Your task to perform on an android device: turn off notifications in google photos Image 0: 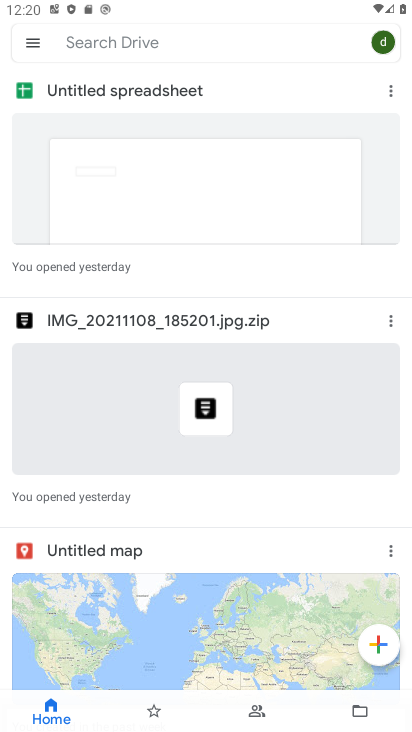
Step 0: press home button
Your task to perform on an android device: turn off notifications in google photos Image 1: 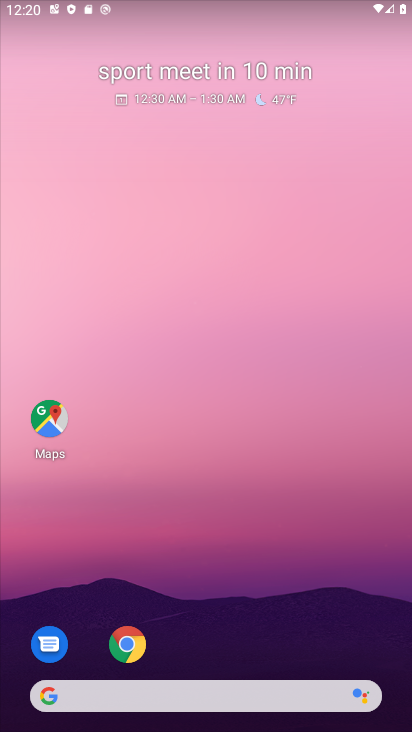
Step 1: drag from (280, 620) to (311, 202)
Your task to perform on an android device: turn off notifications in google photos Image 2: 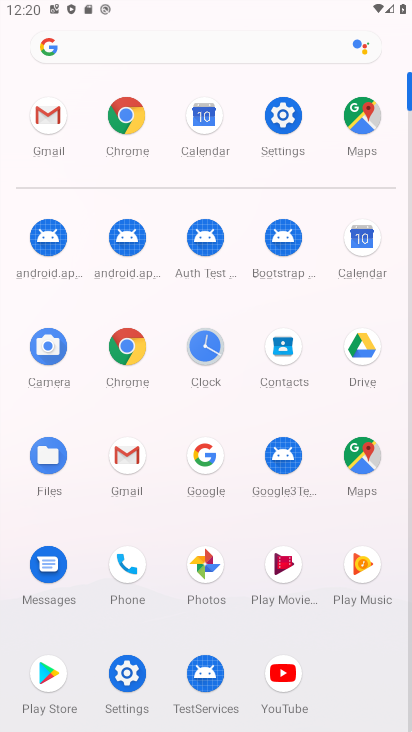
Step 2: click (200, 579)
Your task to perform on an android device: turn off notifications in google photos Image 3: 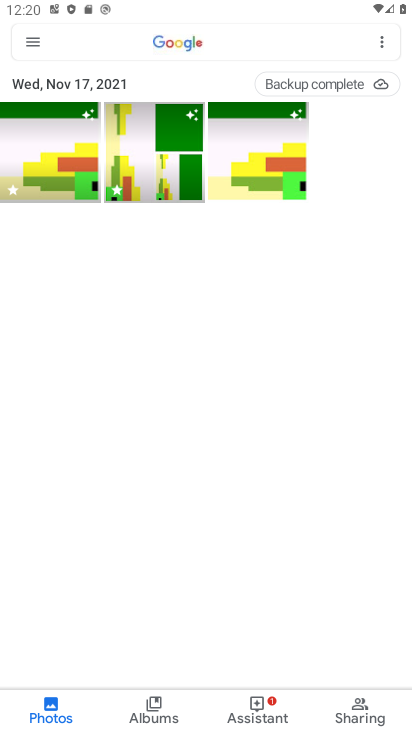
Step 3: click (28, 52)
Your task to perform on an android device: turn off notifications in google photos Image 4: 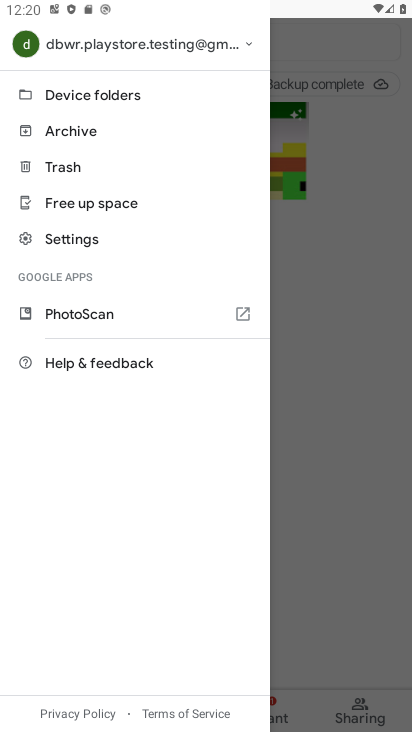
Step 4: click (119, 247)
Your task to perform on an android device: turn off notifications in google photos Image 5: 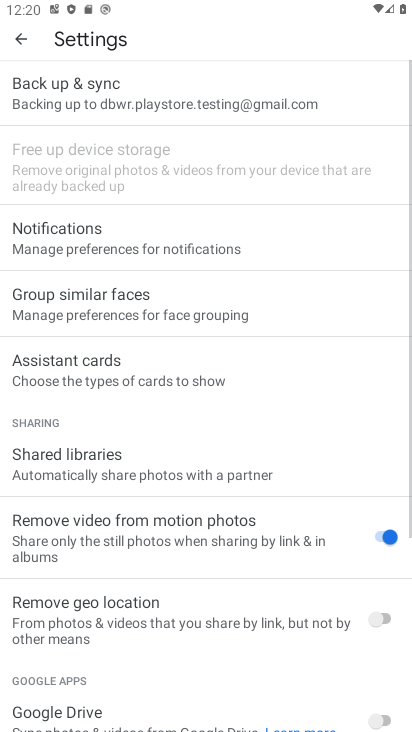
Step 5: drag from (230, 557) to (226, 445)
Your task to perform on an android device: turn off notifications in google photos Image 6: 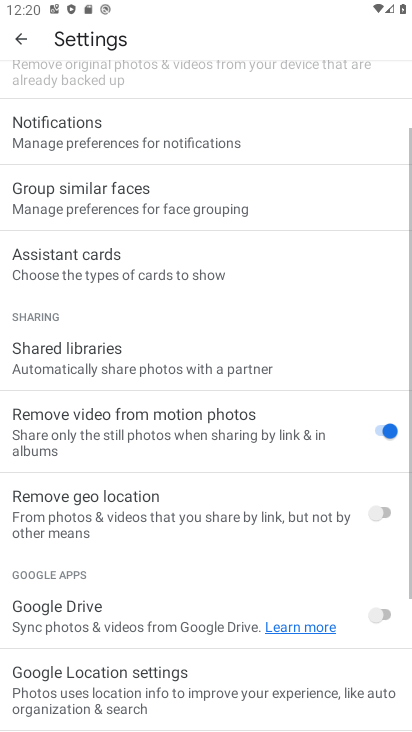
Step 6: click (170, 249)
Your task to perform on an android device: turn off notifications in google photos Image 7: 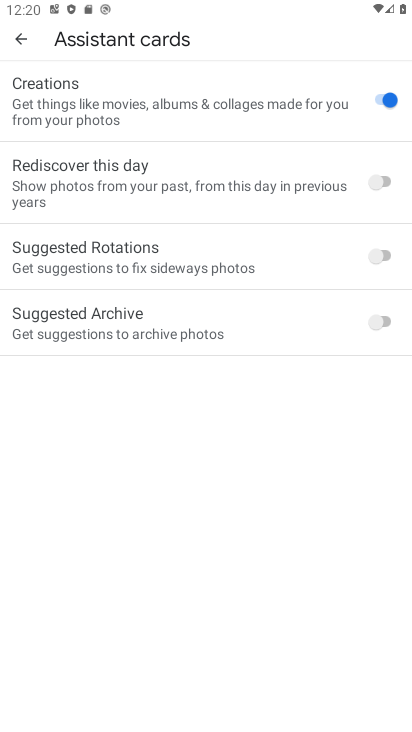
Step 7: press back button
Your task to perform on an android device: turn off notifications in google photos Image 8: 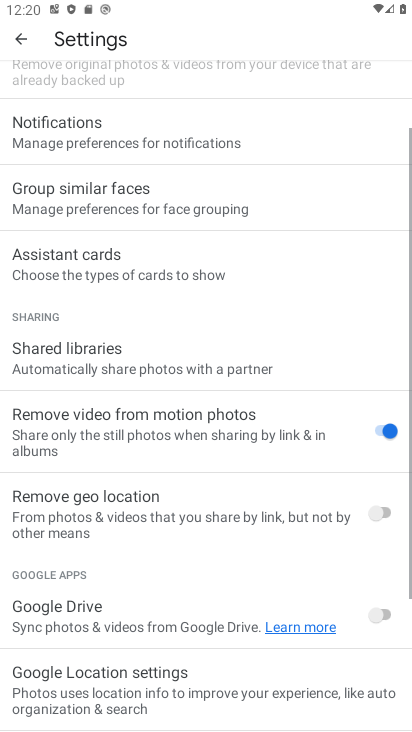
Step 8: click (155, 147)
Your task to perform on an android device: turn off notifications in google photos Image 9: 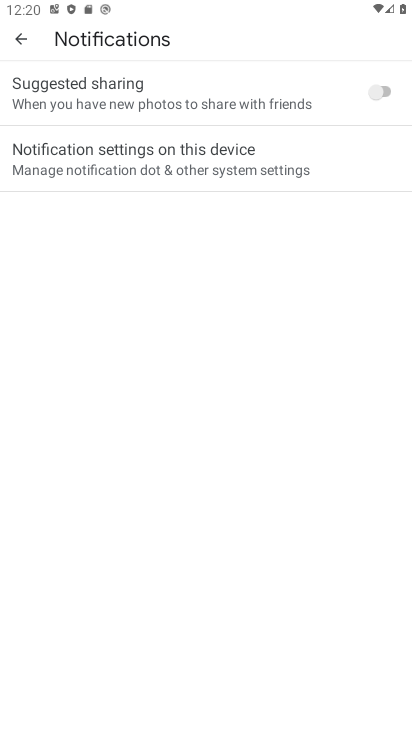
Step 9: click (217, 171)
Your task to perform on an android device: turn off notifications in google photos Image 10: 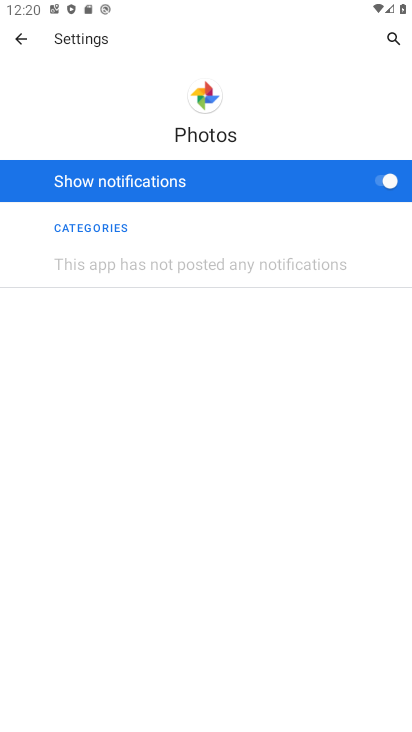
Step 10: click (386, 188)
Your task to perform on an android device: turn off notifications in google photos Image 11: 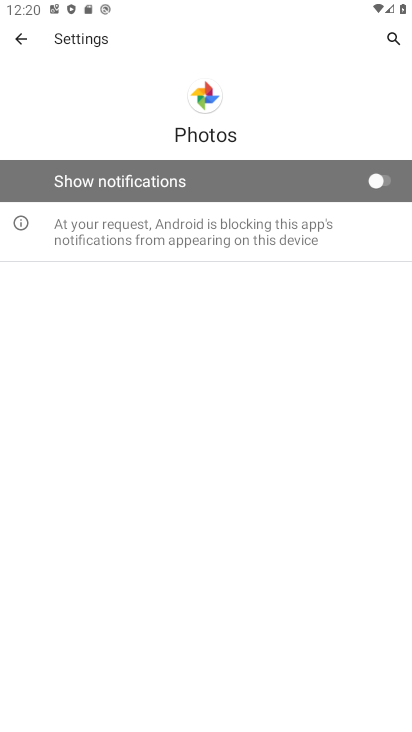
Step 11: task complete